Your task to perform on an android device: Open accessibility settings Image 0: 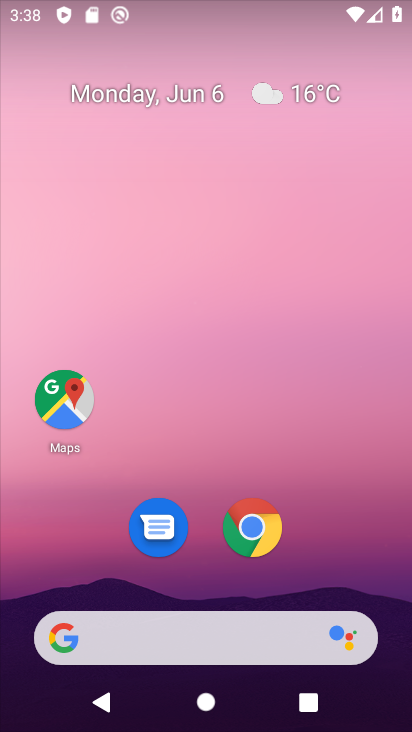
Step 0: drag from (339, 523) to (214, 30)
Your task to perform on an android device: Open accessibility settings Image 1: 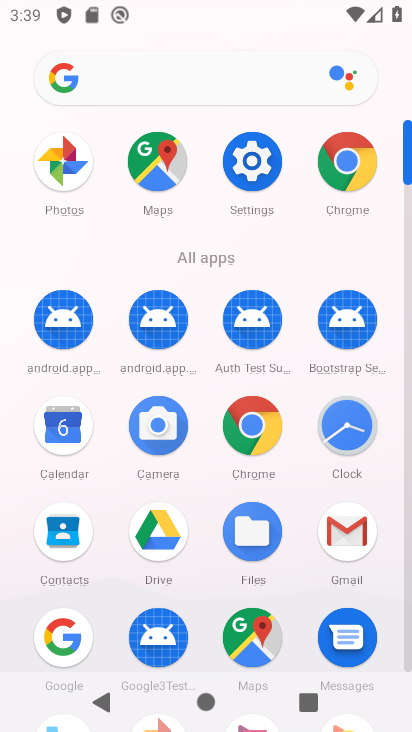
Step 1: click (252, 171)
Your task to perform on an android device: Open accessibility settings Image 2: 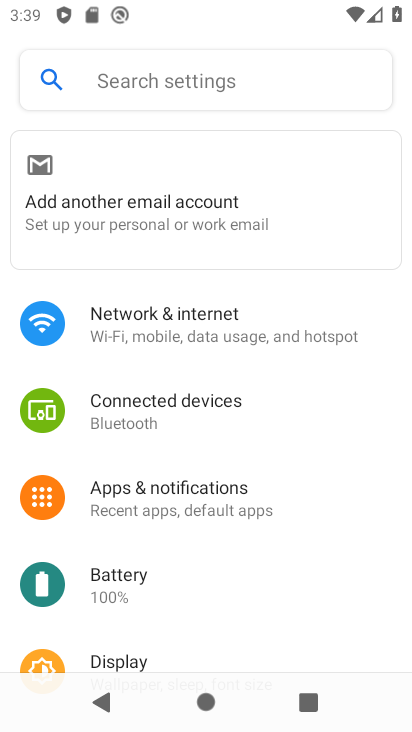
Step 2: drag from (297, 596) to (171, 106)
Your task to perform on an android device: Open accessibility settings Image 3: 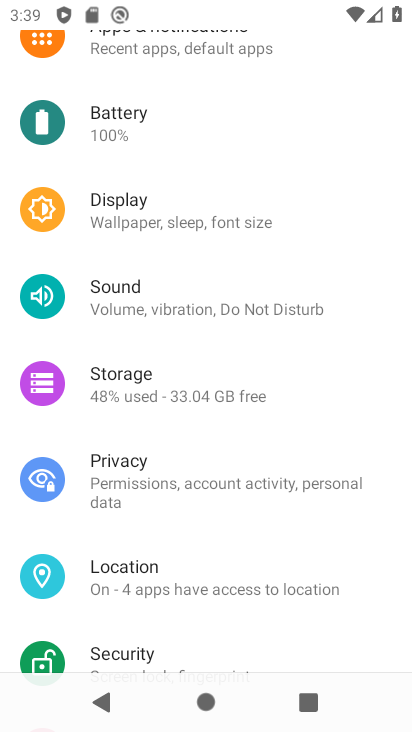
Step 3: drag from (201, 561) to (111, 89)
Your task to perform on an android device: Open accessibility settings Image 4: 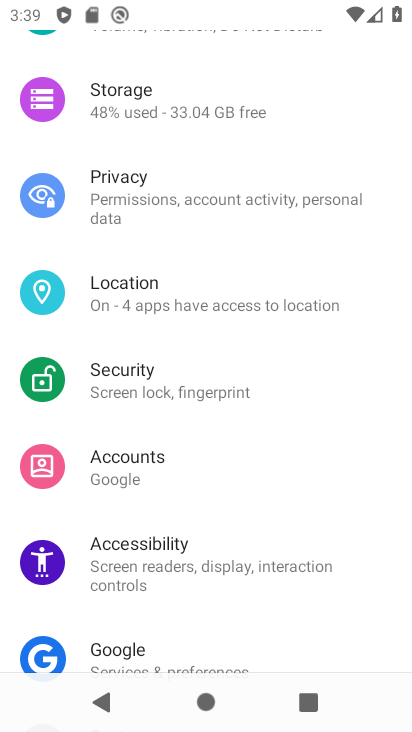
Step 4: click (190, 554)
Your task to perform on an android device: Open accessibility settings Image 5: 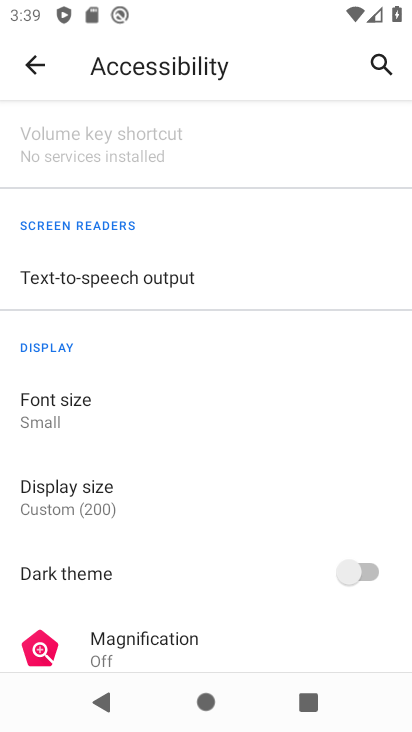
Step 5: task complete